Your task to perform on an android device: Open privacy settings Image 0: 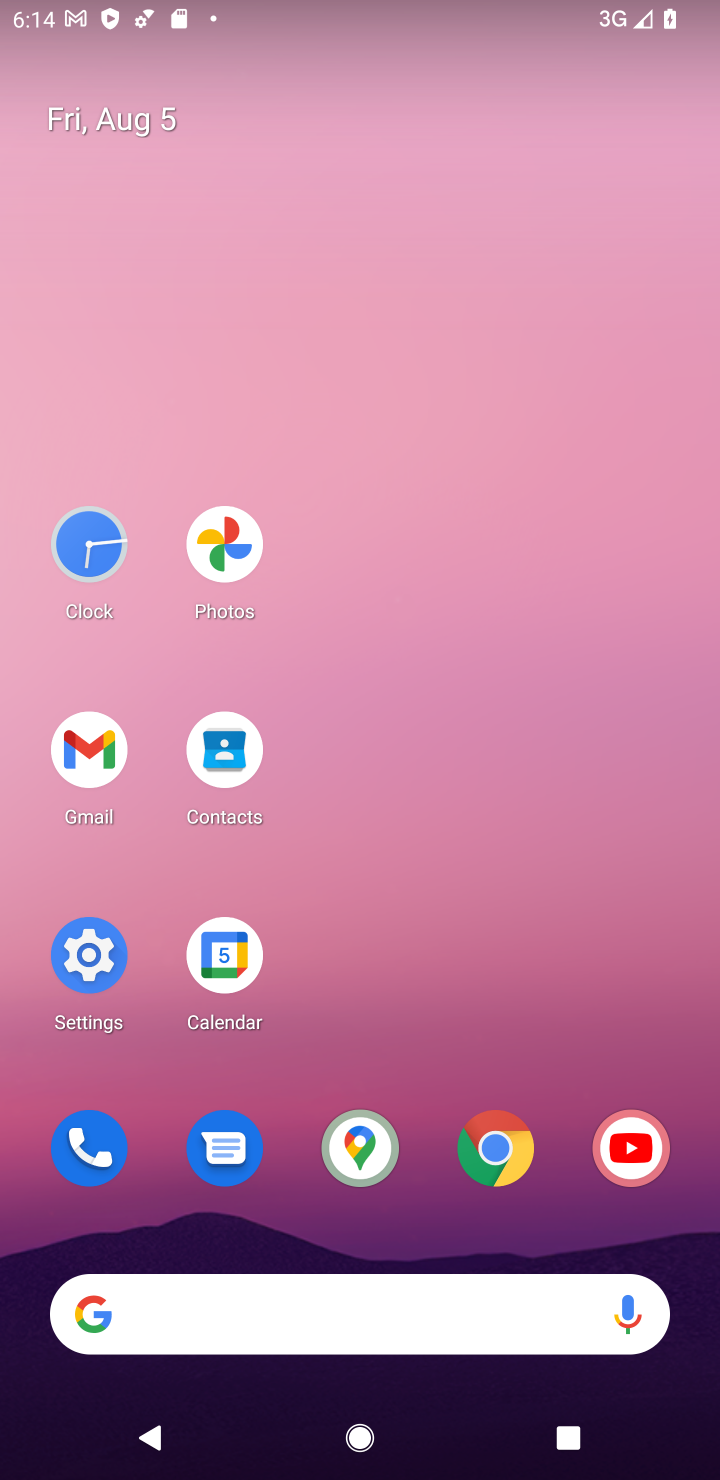
Step 0: press home button
Your task to perform on an android device: Open privacy settings Image 1: 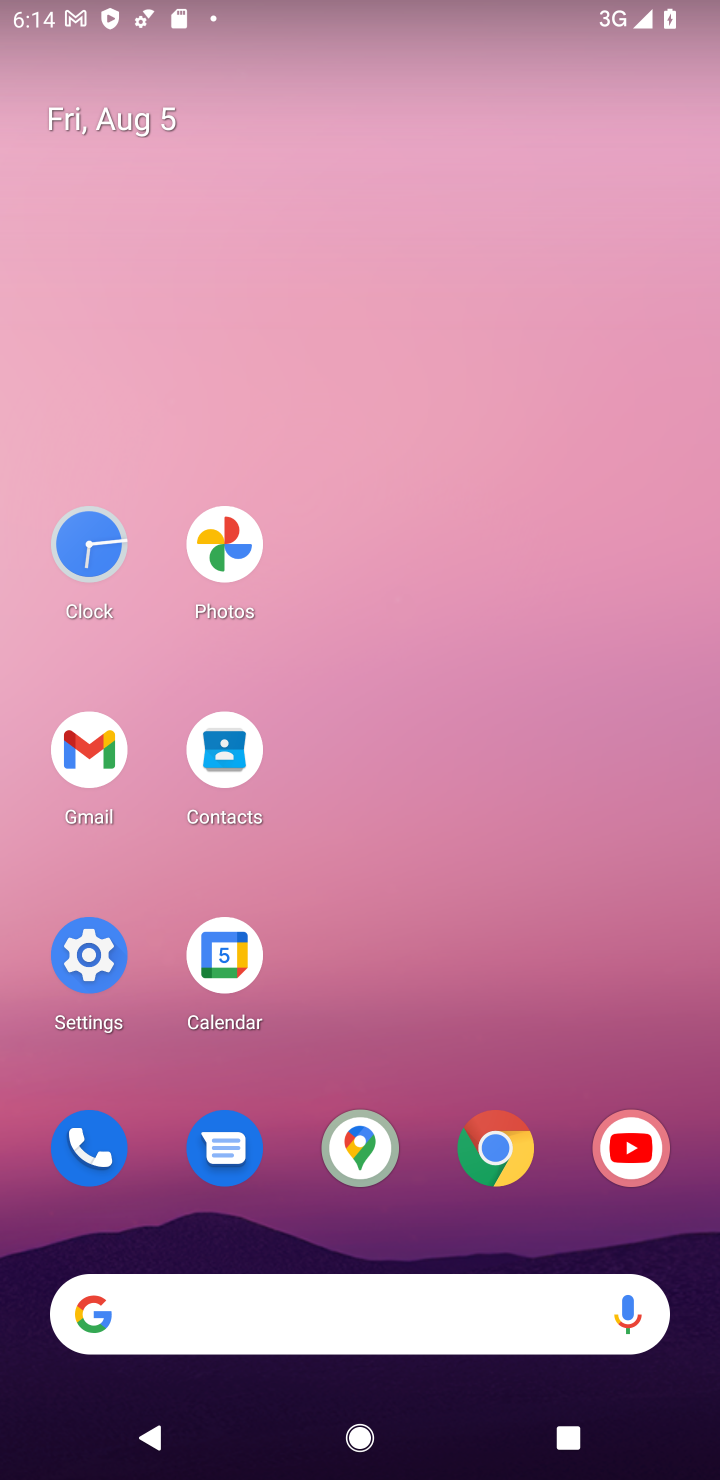
Step 1: click (98, 957)
Your task to perform on an android device: Open privacy settings Image 2: 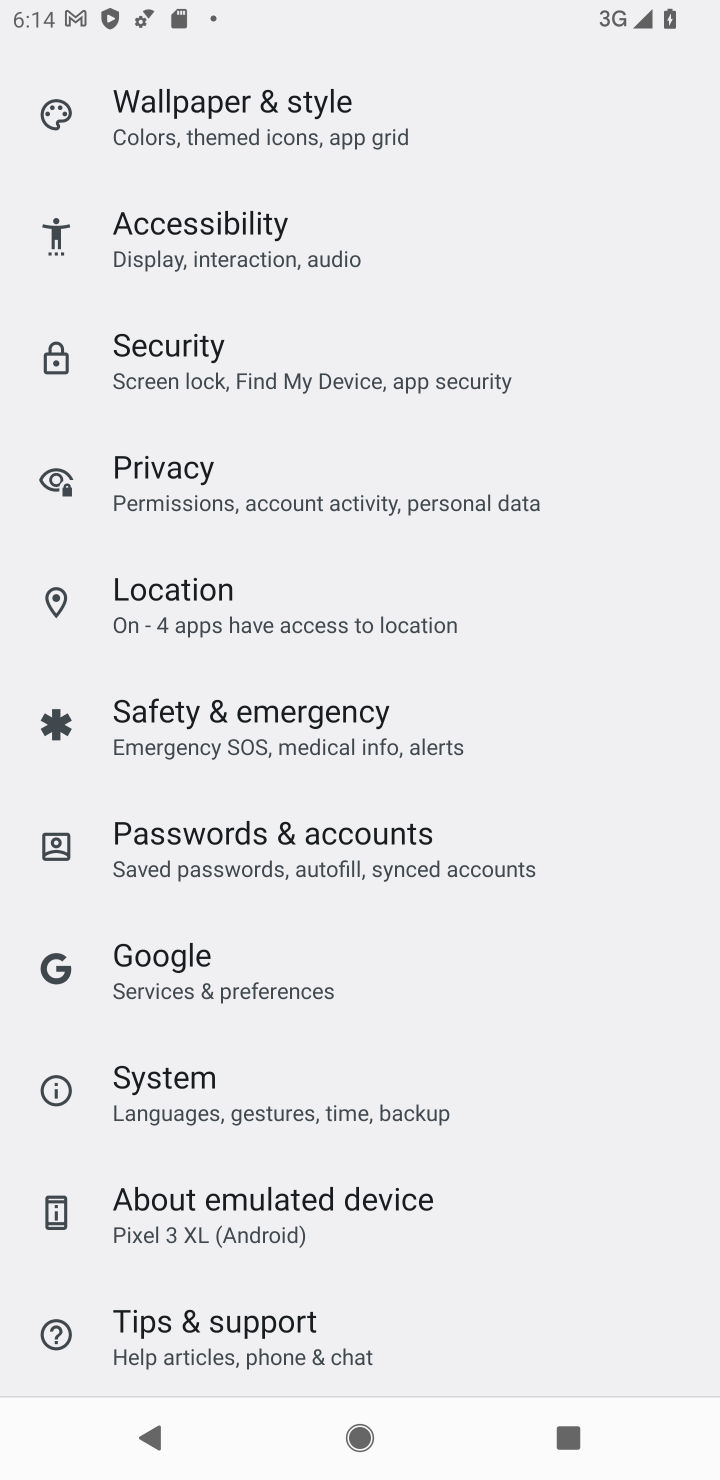
Step 2: click (159, 467)
Your task to perform on an android device: Open privacy settings Image 3: 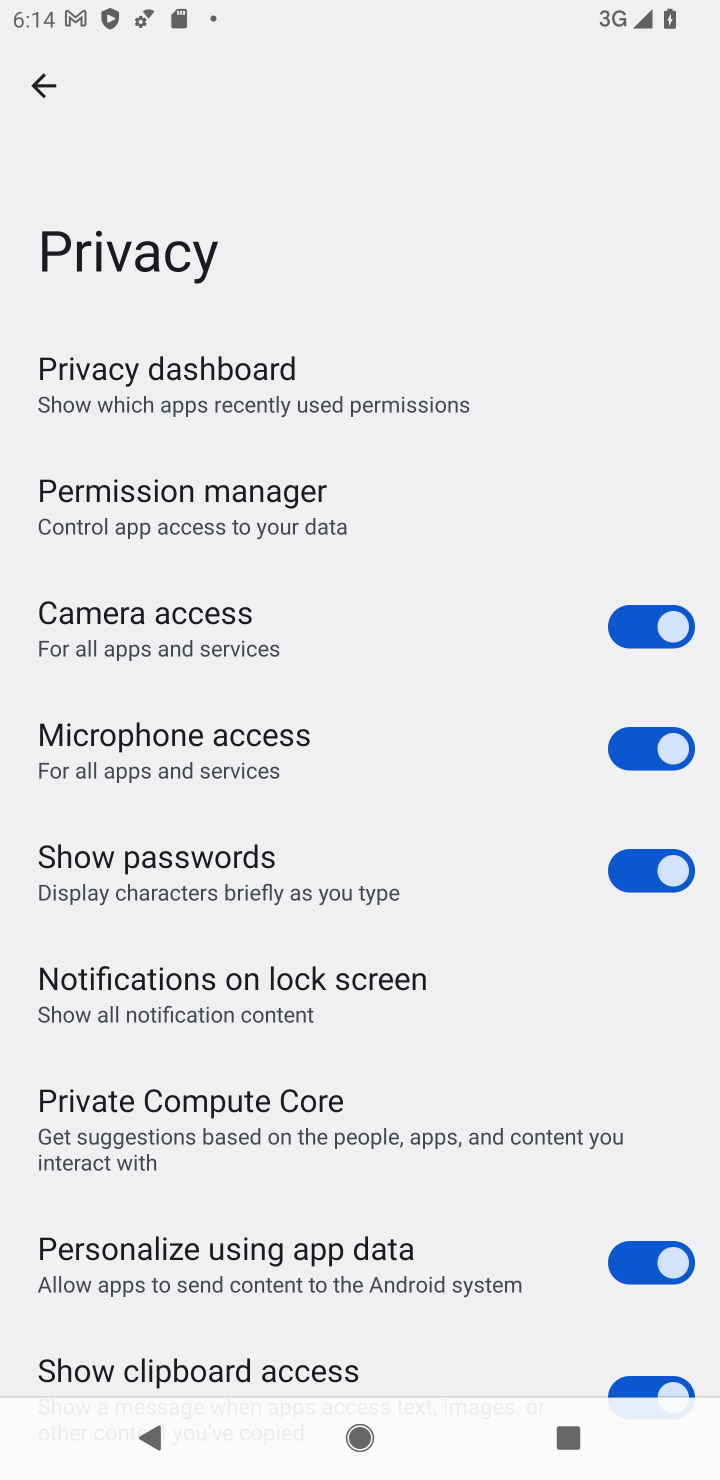
Step 3: task complete